Your task to perform on an android device: change the clock display to digital Image 0: 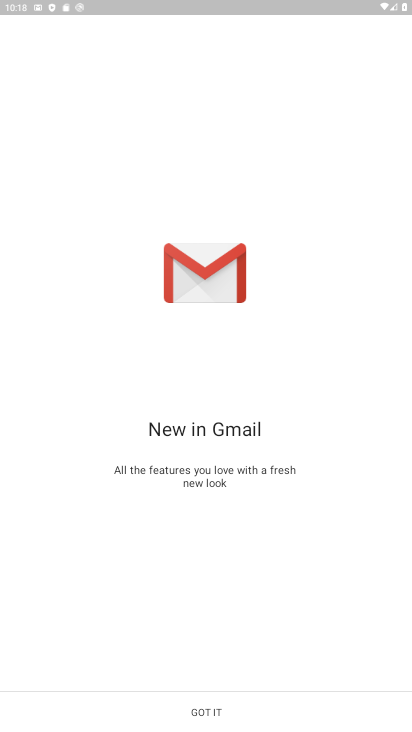
Step 0: press home button
Your task to perform on an android device: change the clock display to digital Image 1: 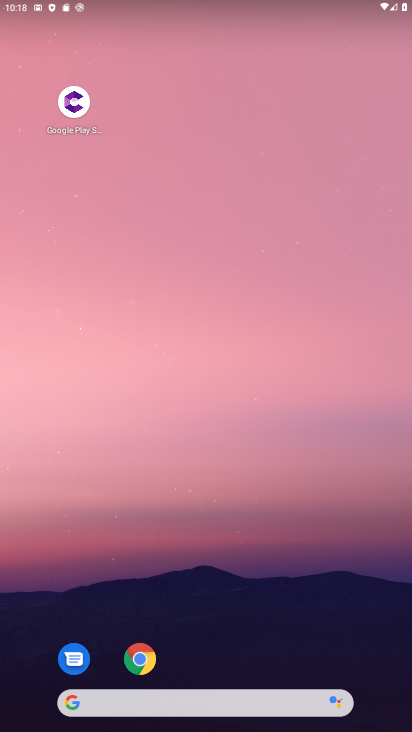
Step 1: drag from (244, 667) to (207, 149)
Your task to perform on an android device: change the clock display to digital Image 2: 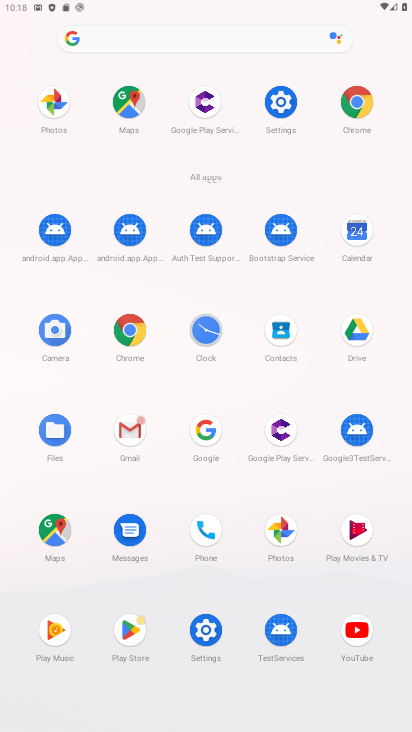
Step 2: click (205, 338)
Your task to perform on an android device: change the clock display to digital Image 3: 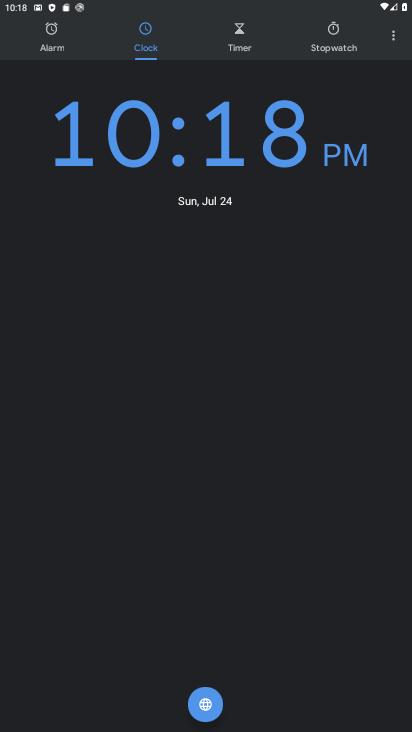
Step 3: click (398, 42)
Your task to perform on an android device: change the clock display to digital Image 4: 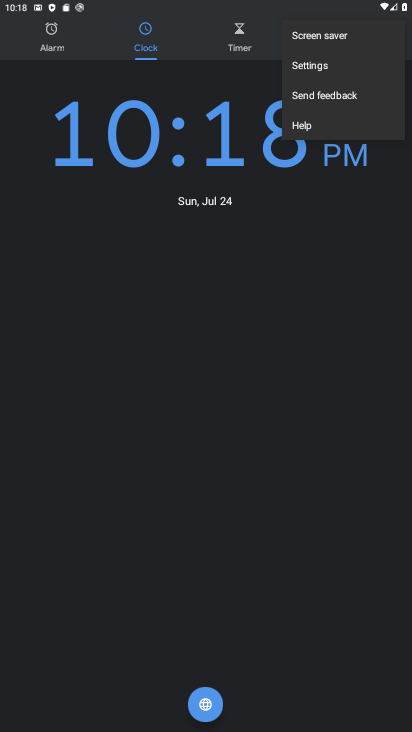
Step 4: click (347, 61)
Your task to perform on an android device: change the clock display to digital Image 5: 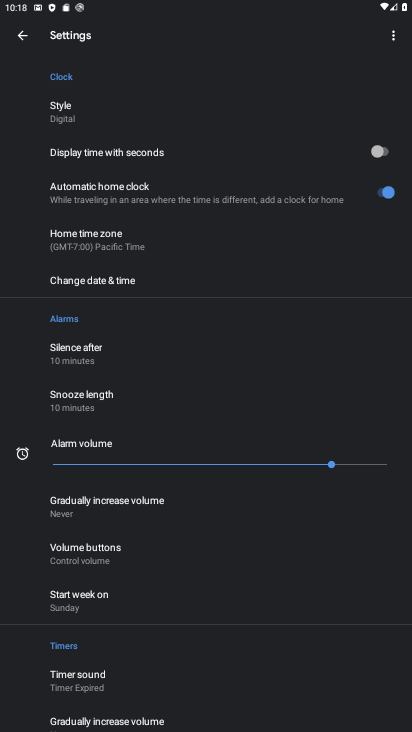
Step 5: click (74, 110)
Your task to perform on an android device: change the clock display to digital Image 6: 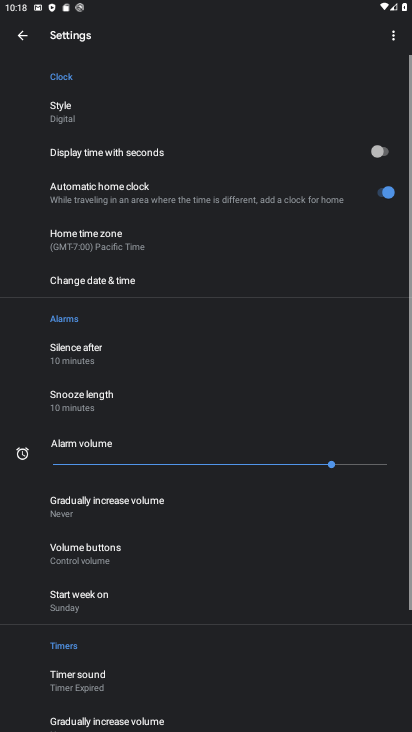
Step 6: click (65, 109)
Your task to perform on an android device: change the clock display to digital Image 7: 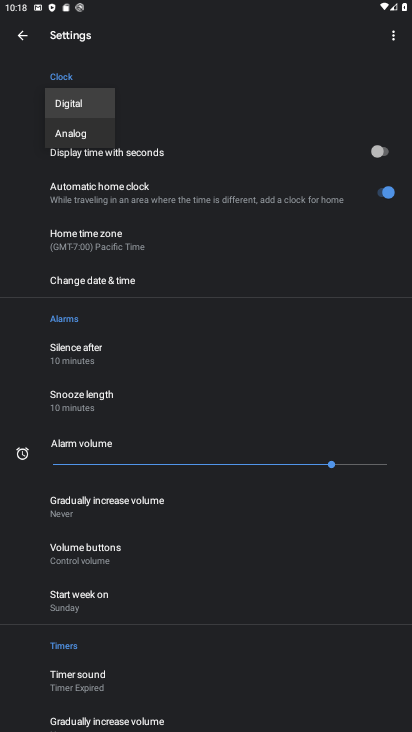
Step 7: task complete